Your task to perform on an android device: See recent photos Image 0: 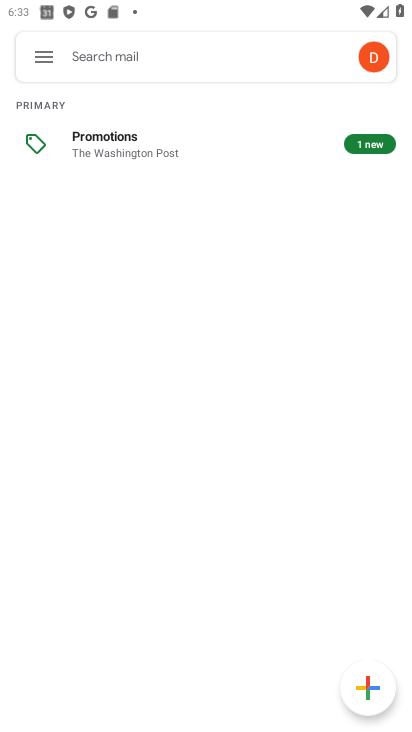
Step 0: press home button
Your task to perform on an android device: See recent photos Image 1: 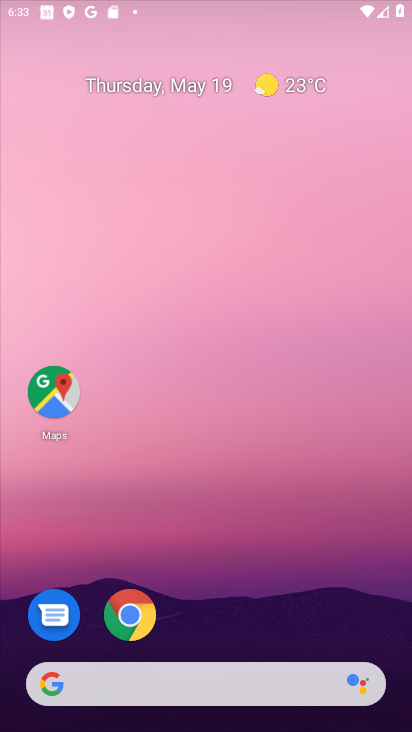
Step 1: drag from (315, 626) to (326, 30)
Your task to perform on an android device: See recent photos Image 2: 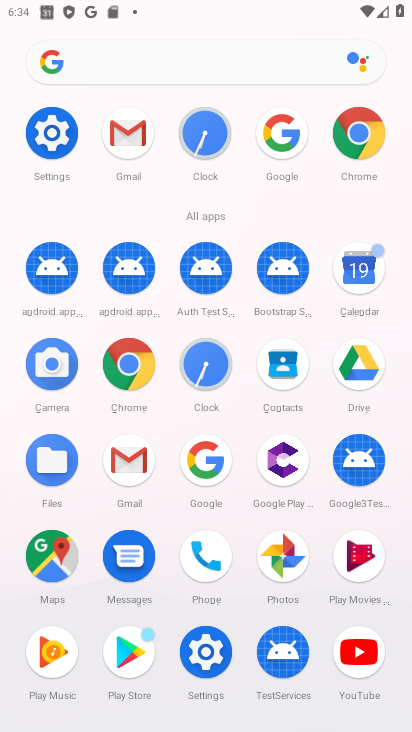
Step 2: click (268, 564)
Your task to perform on an android device: See recent photos Image 3: 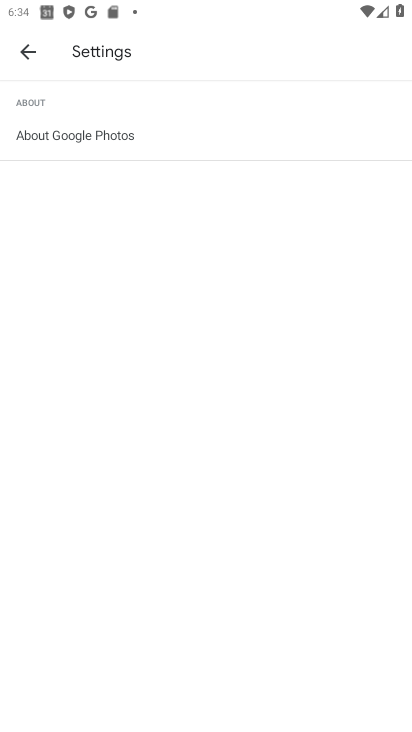
Step 3: press back button
Your task to perform on an android device: See recent photos Image 4: 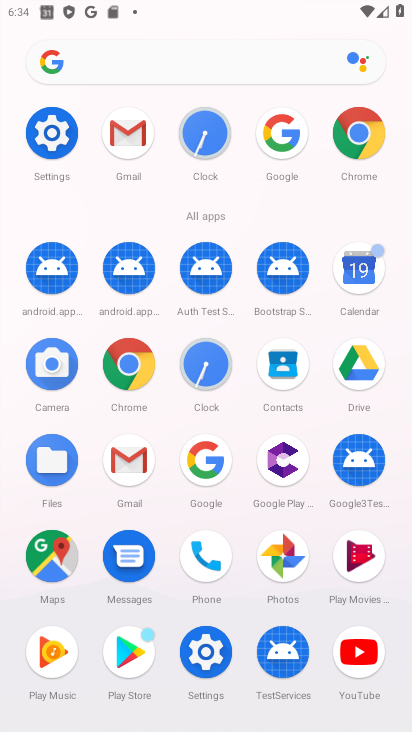
Step 4: click (278, 559)
Your task to perform on an android device: See recent photos Image 5: 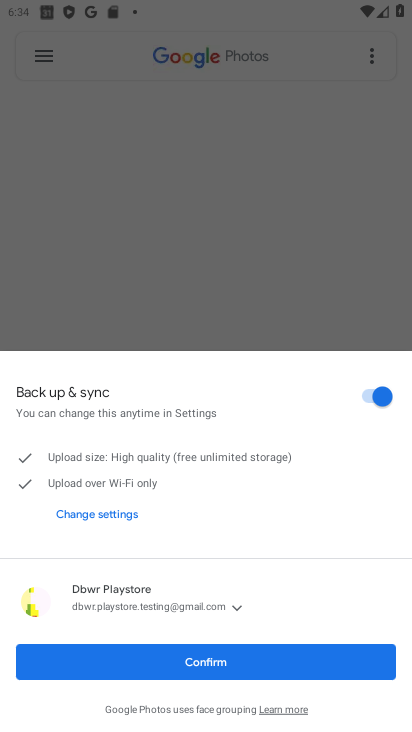
Step 5: click (192, 660)
Your task to perform on an android device: See recent photos Image 6: 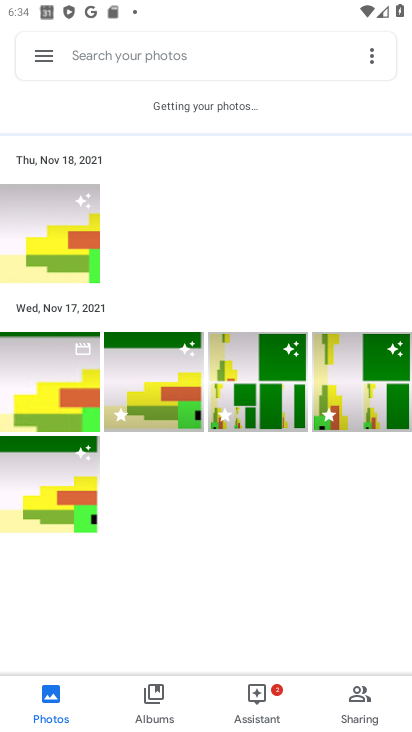
Step 6: click (52, 221)
Your task to perform on an android device: See recent photos Image 7: 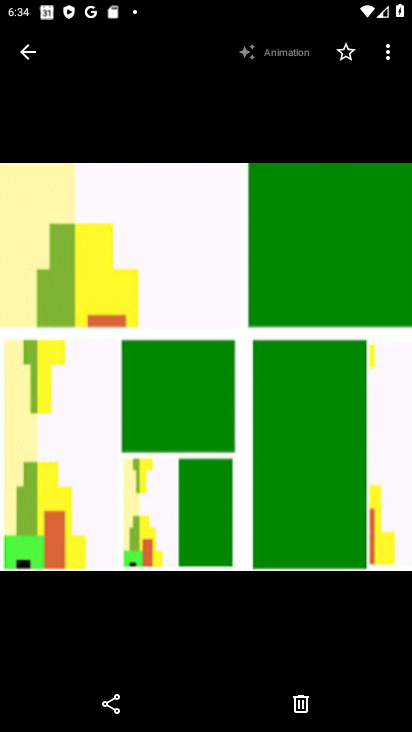
Step 7: task complete